Your task to perform on an android device: Open wifi settings Image 0: 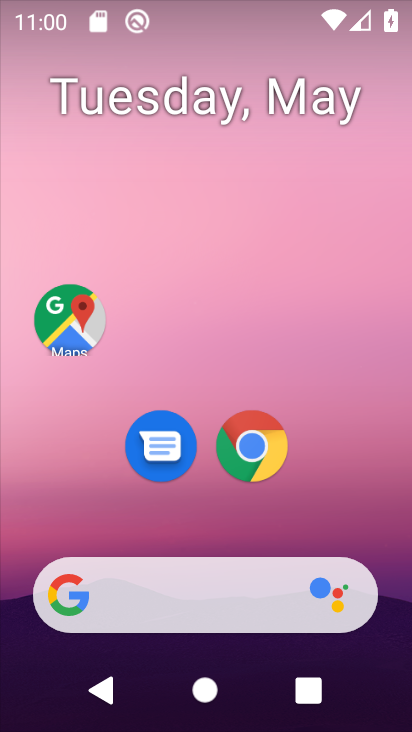
Step 0: drag from (347, 519) to (323, 72)
Your task to perform on an android device: Open wifi settings Image 1: 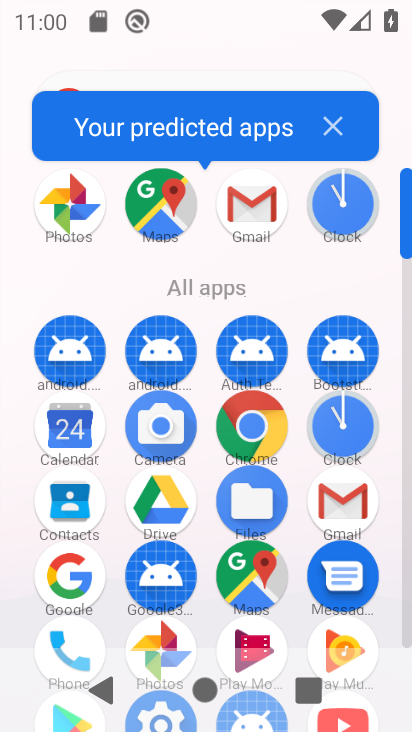
Step 1: drag from (304, 312) to (311, 58)
Your task to perform on an android device: Open wifi settings Image 2: 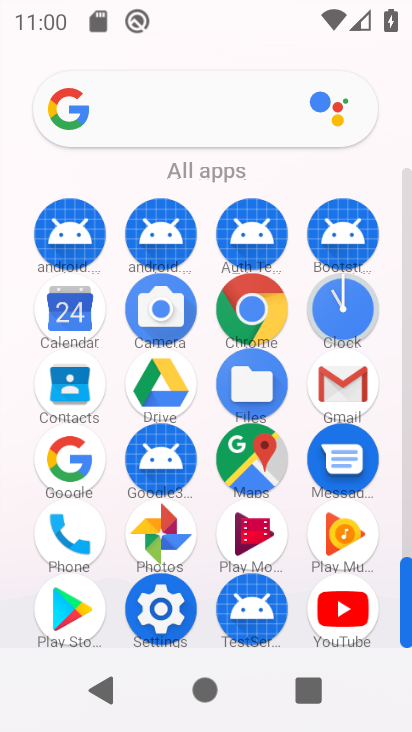
Step 2: click (162, 608)
Your task to perform on an android device: Open wifi settings Image 3: 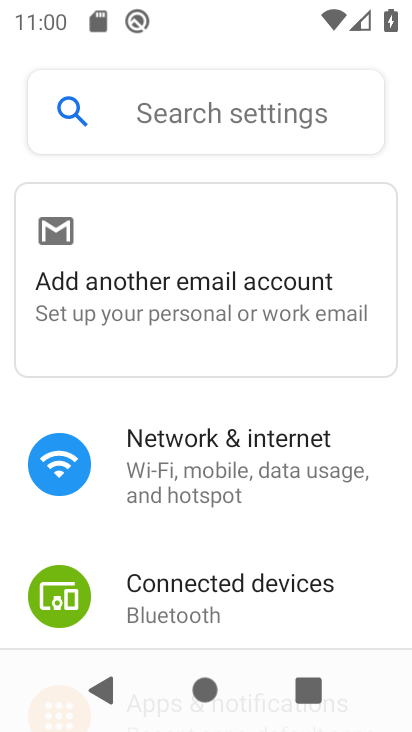
Step 3: click (205, 438)
Your task to perform on an android device: Open wifi settings Image 4: 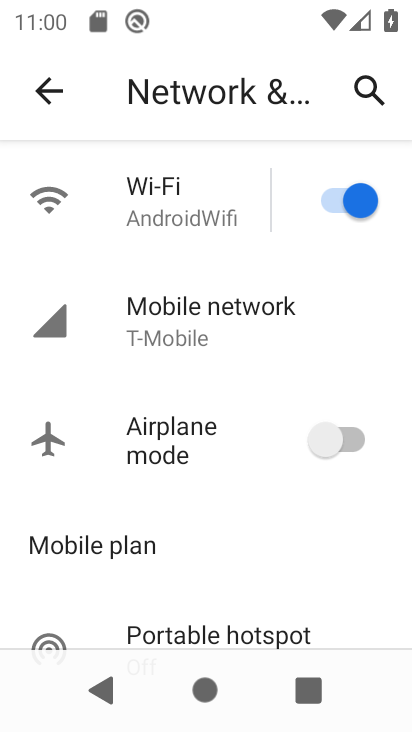
Step 4: click (156, 194)
Your task to perform on an android device: Open wifi settings Image 5: 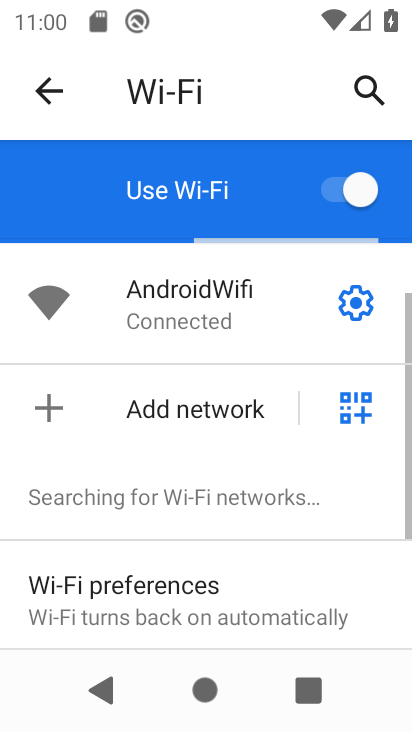
Step 5: click (356, 302)
Your task to perform on an android device: Open wifi settings Image 6: 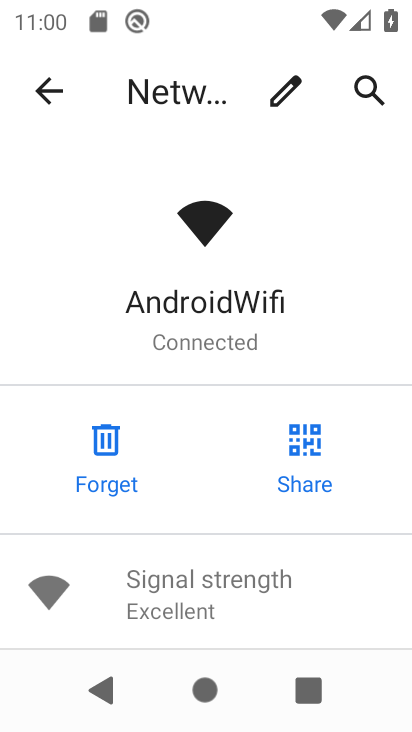
Step 6: task complete